Your task to perform on an android device: Add "dell alienware" to the cart on target Image 0: 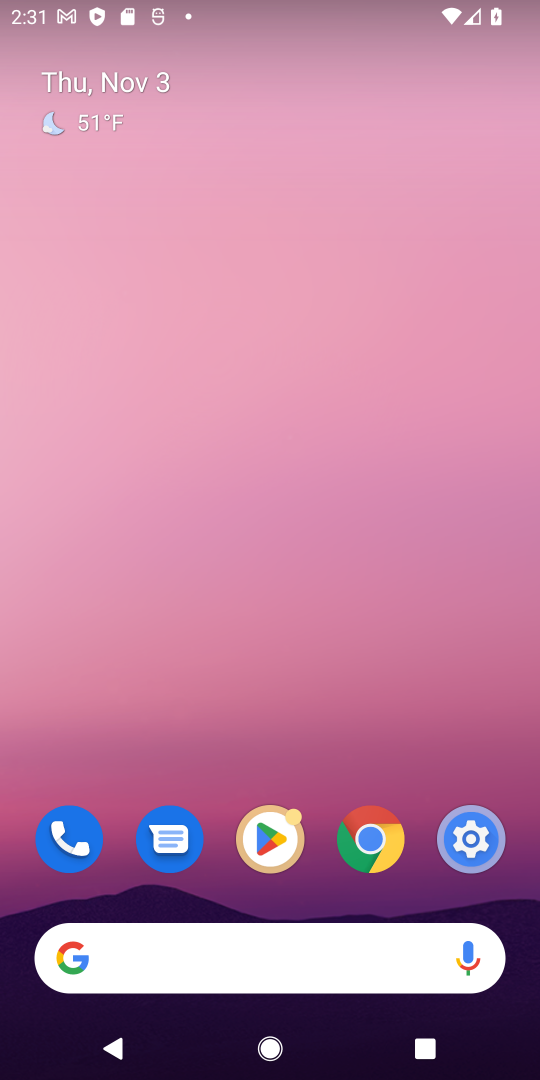
Step 0: click (200, 967)
Your task to perform on an android device: Add "dell alienware" to the cart on target Image 1: 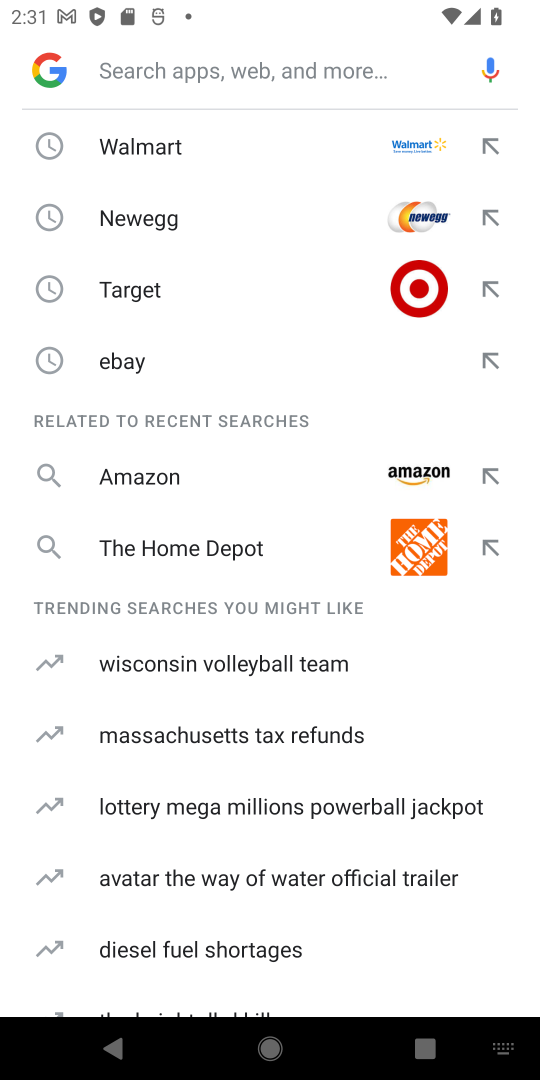
Step 1: type "dell alienware"
Your task to perform on an android device: Add "dell alienware" to the cart on target Image 2: 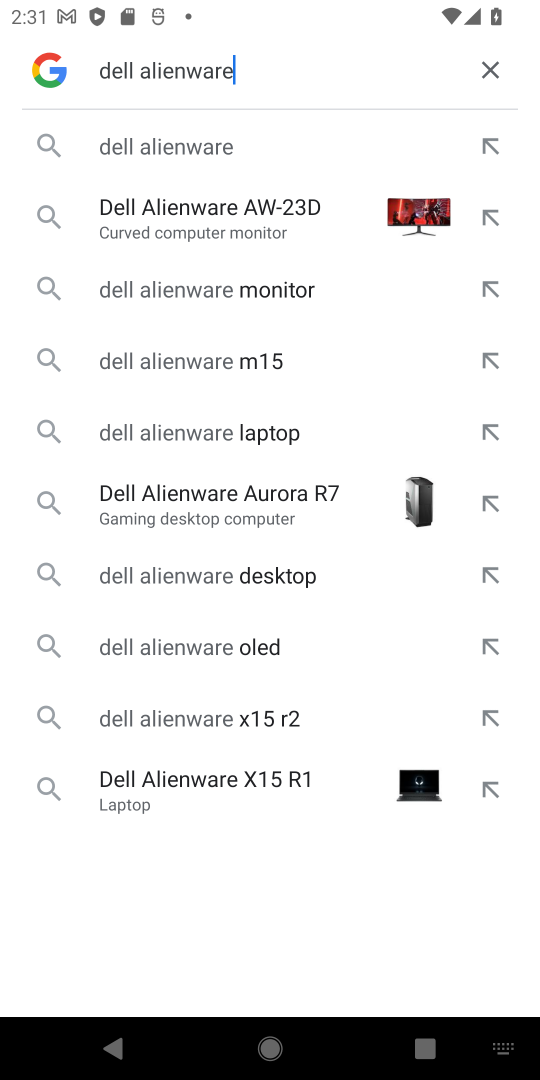
Step 2: click (371, 156)
Your task to perform on an android device: Add "dell alienware" to the cart on target Image 3: 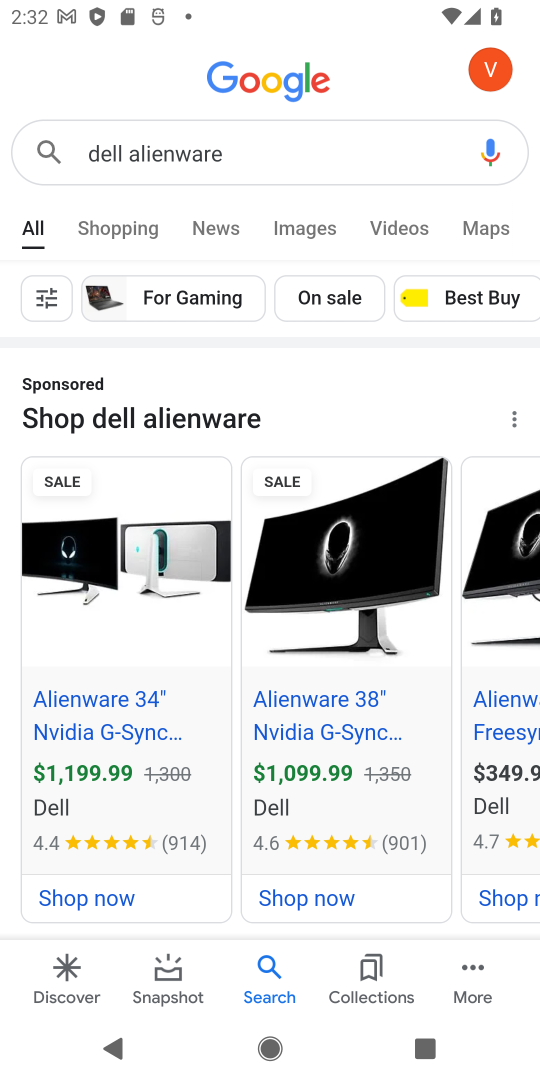
Step 3: drag from (505, 797) to (8, 618)
Your task to perform on an android device: Add "dell alienware" to the cart on target Image 4: 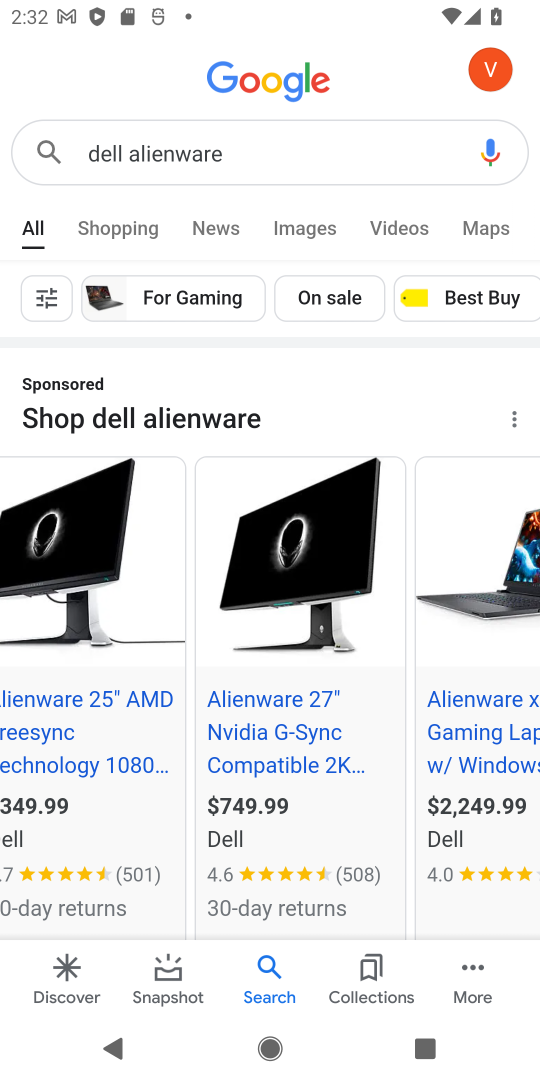
Step 4: drag from (502, 813) to (77, 767)
Your task to perform on an android device: Add "dell alienware" to the cart on target Image 5: 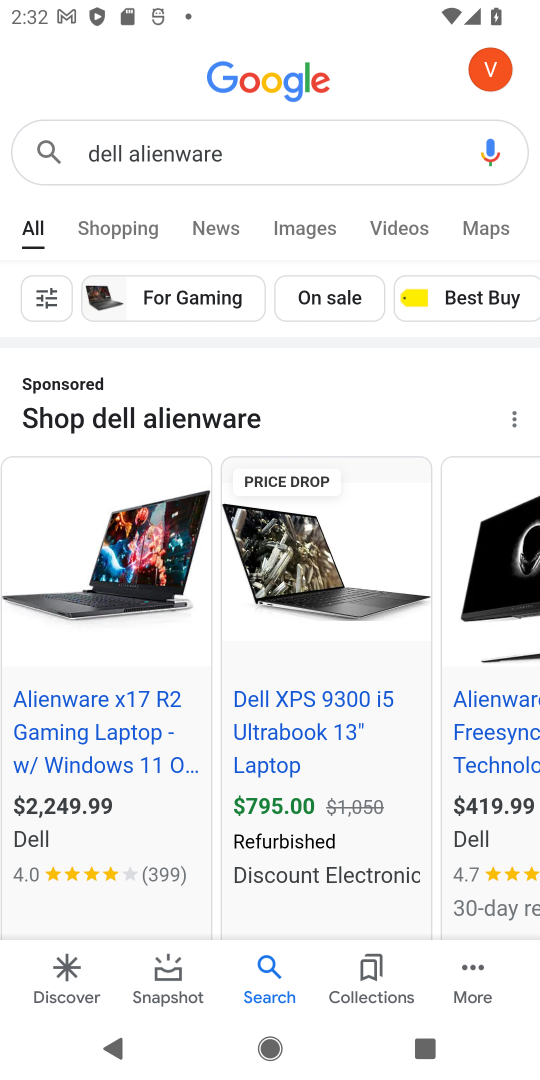
Step 5: drag from (446, 821) to (38, 602)
Your task to perform on an android device: Add "dell alienware" to the cart on target Image 6: 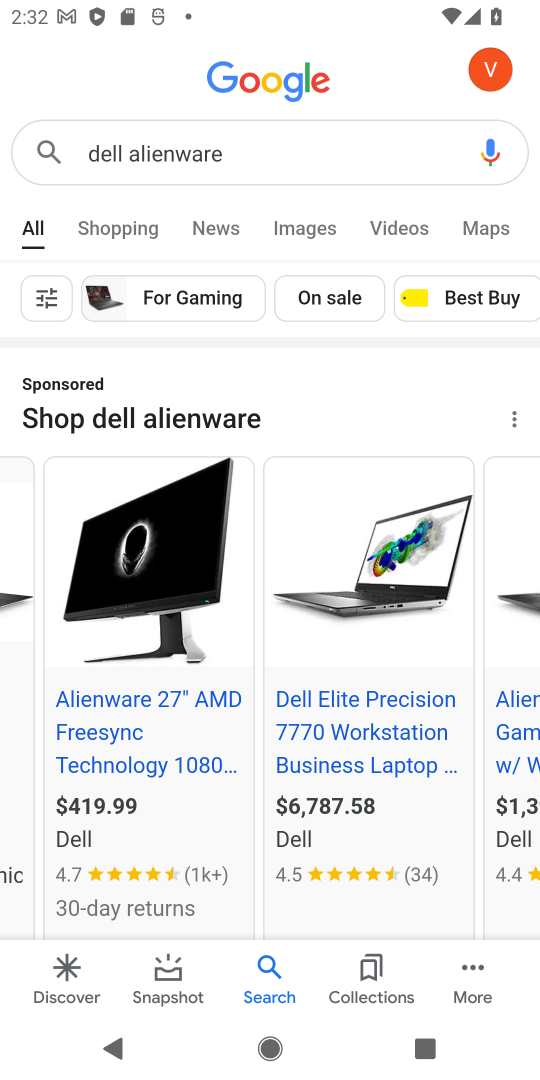
Step 6: click (323, 681)
Your task to perform on an android device: Add "dell alienware" to the cart on target Image 7: 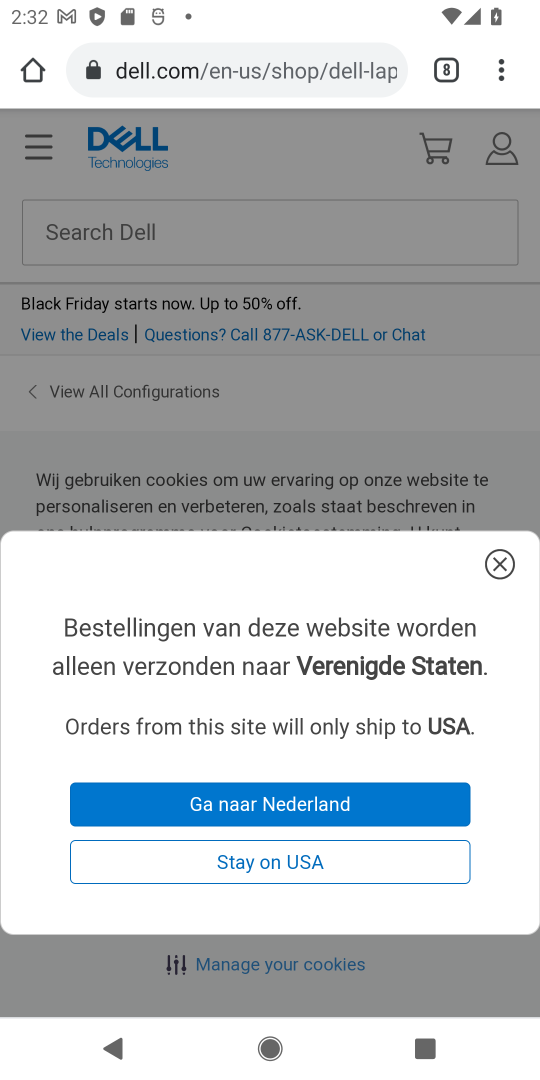
Step 7: task complete